Your task to perform on an android device: check battery use Image 0: 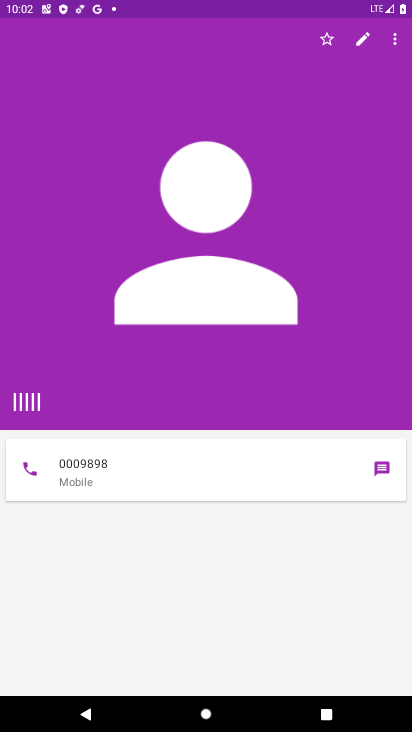
Step 0: press home button
Your task to perform on an android device: check battery use Image 1: 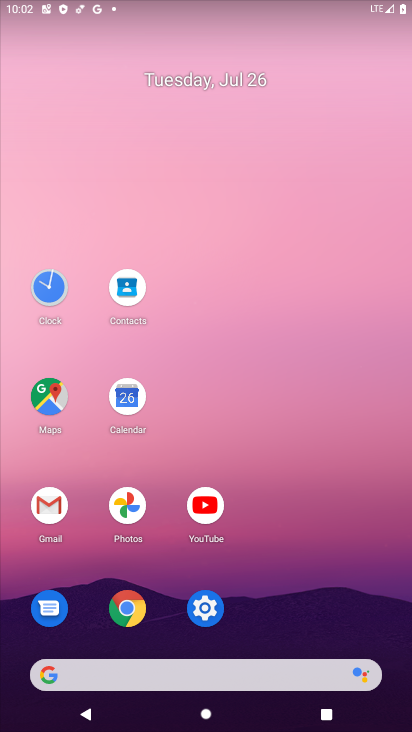
Step 1: click (204, 630)
Your task to perform on an android device: check battery use Image 2: 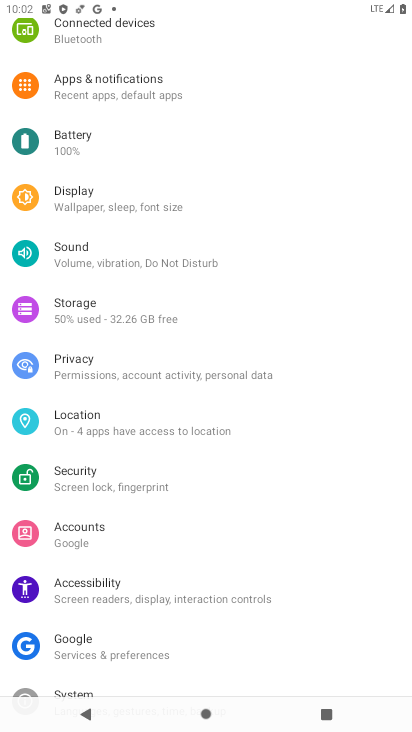
Step 2: click (68, 139)
Your task to perform on an android device: check battery use Image 3: 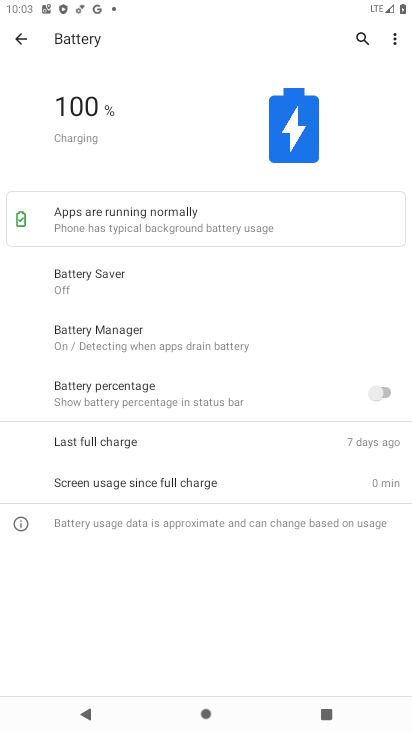
Step 3: task complete